Your task to perform on an android device: turn off location Image 0: 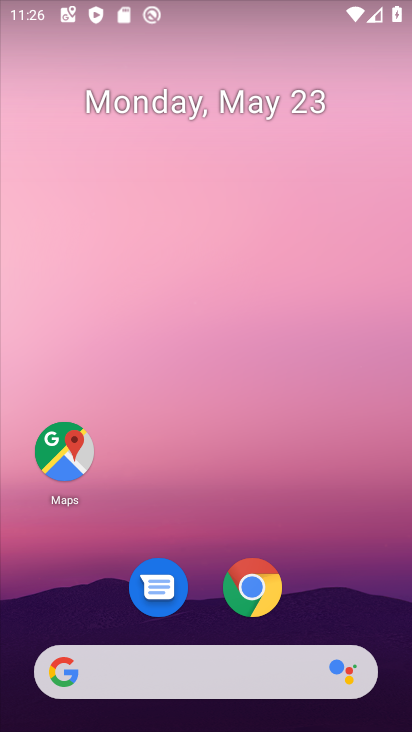
Step 0: drag from (350, 604) to (328, 161)
Your task to perform on an android device: turn off location Image 1: 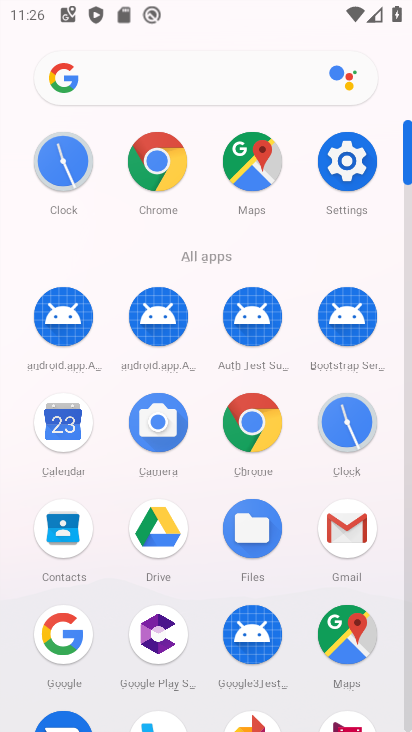
Step 1: click (348, 171)
Your task to perform on an android device: turn off location Image 2: 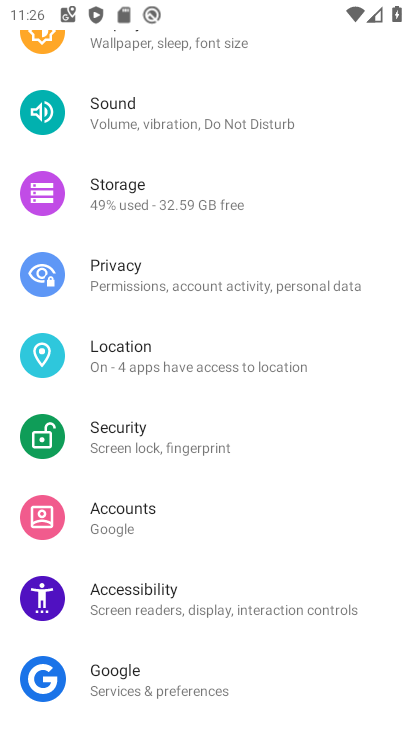
Step 2: click (226, 366)
Your task to perform on an android device: turn off location Image 3: 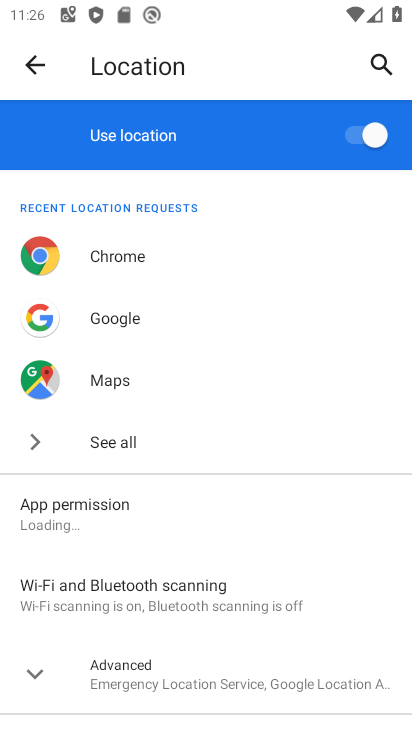
Step 3: click (372, 132)
Your task to perform on an android device: turn off location Image 4: 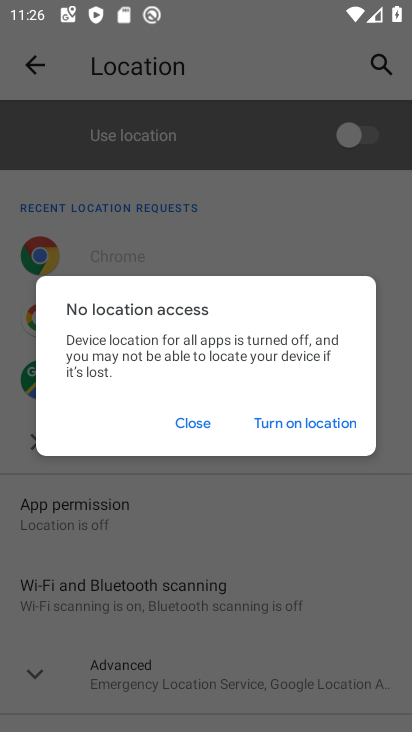
Step 4: click (202, 424)
Your task to perform on an android device: turn off location Image 5: 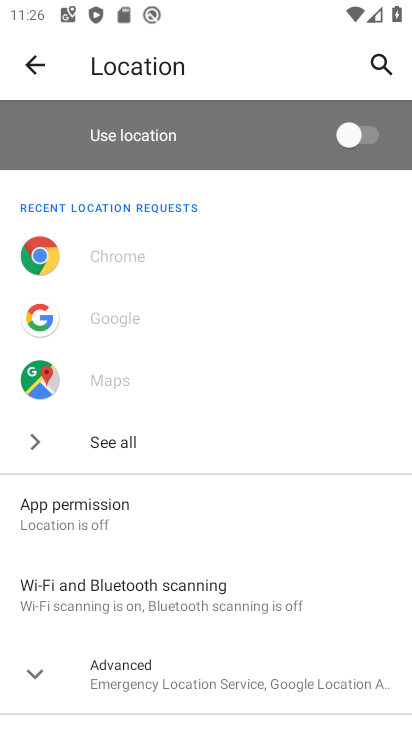
Step 5: task complete